Your task to perform on an android device: Open Google Maps Image 0: 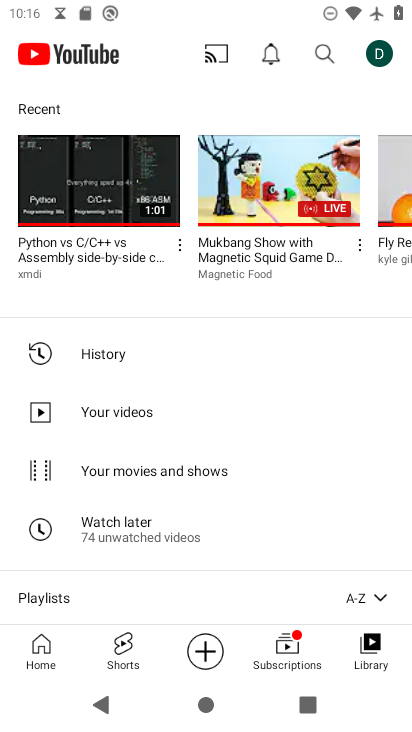
Step 0: press home button
Your task to perform on an android device: Open Google Maps Image 1: 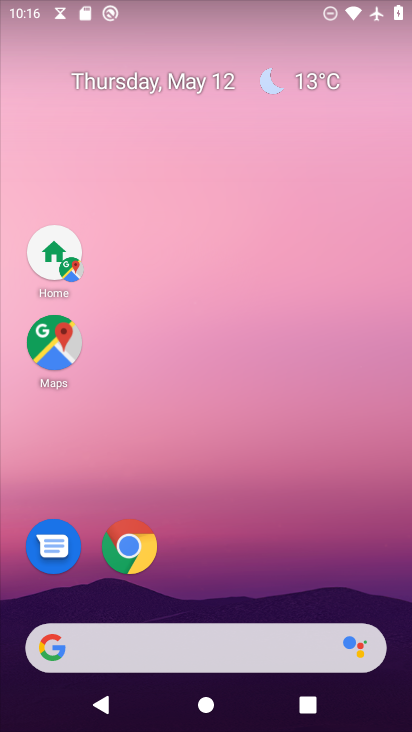
Step 1: click (60, 349)
Your task to perform on an android device: Open Google Maps Image 2: 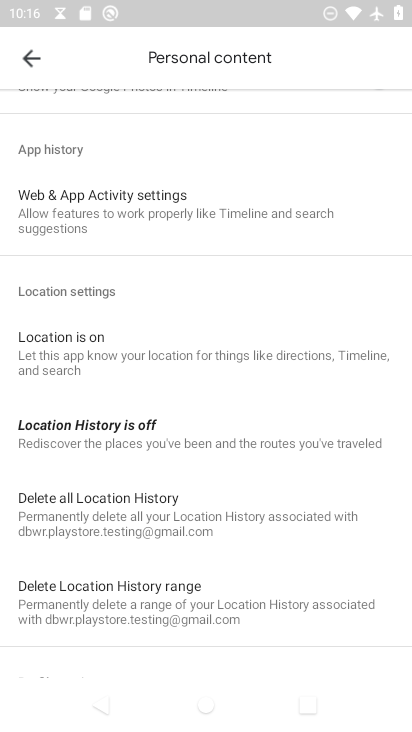
Step 2: click (32, 59)
Your task to perform on an android device: Open Google Maps Image 3: 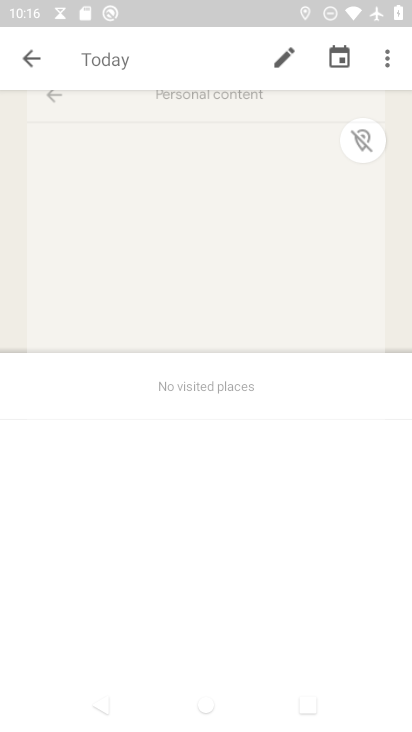
Step 3: click (32, 59)
Your task to perform on an android device: Open Google Maps Image 4: 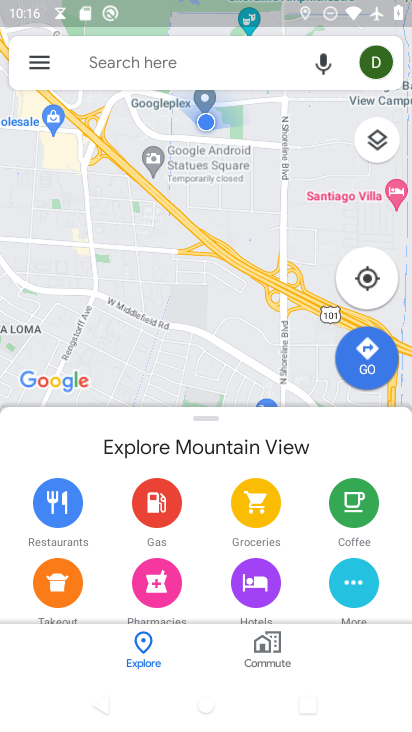
Step 4: task complete